Your task to perform on an android device: turn notification dots off Image 0: 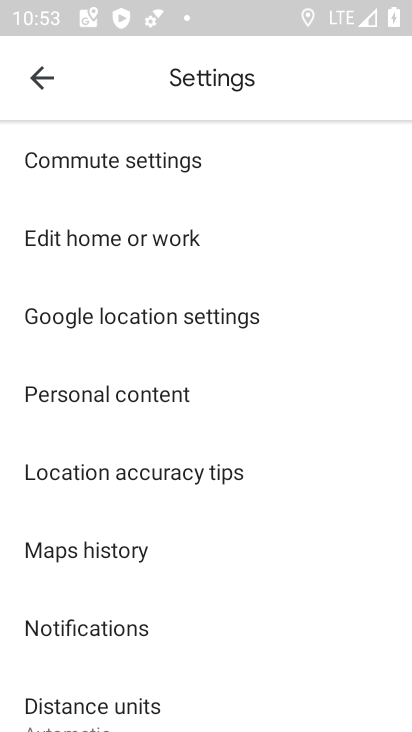
Step 0: press home button
Your task to perform on an android device: turn notification dots off Image 1: 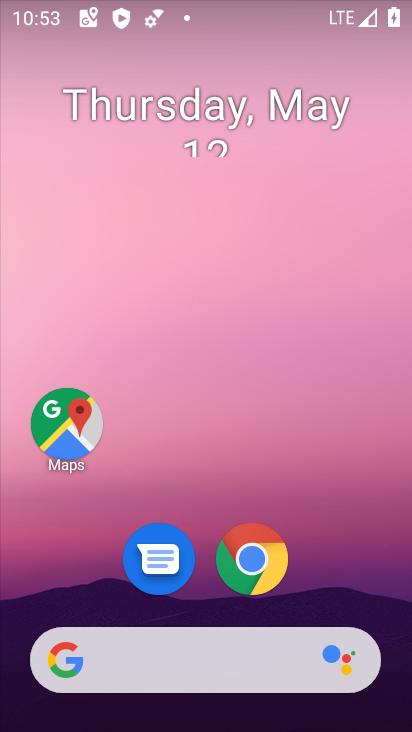
Step 1: drag from (213, 598) to (212, 190)
Your task to perform on an android device: turn notification dots off Image 2: 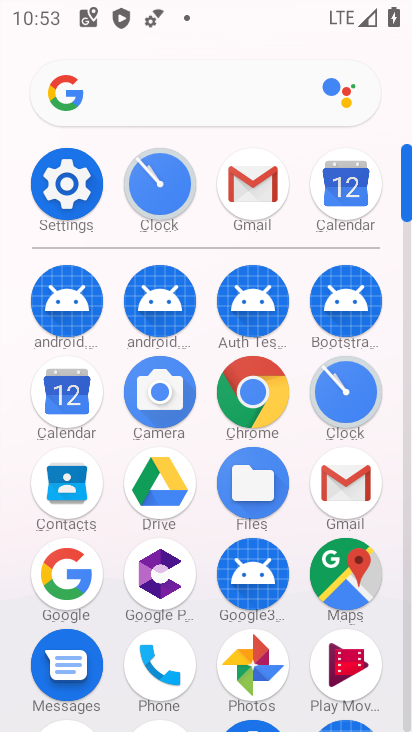
Step 2: click (69, 181)
Your task to perform on an android device: turn notification dots off Image 3: 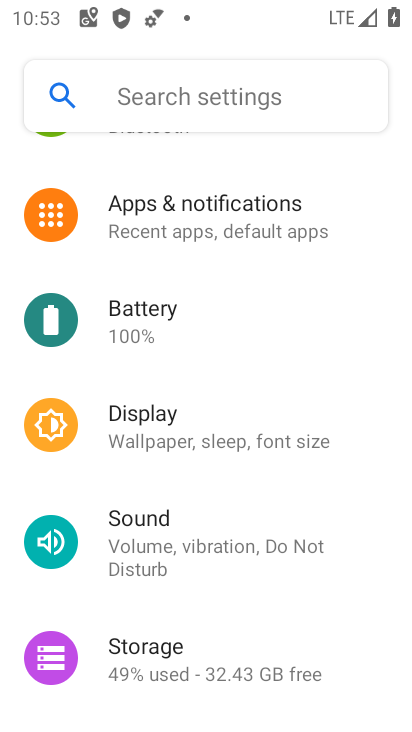
Step 3: drag from (210, 631) to (192, 380)
Your task to perform on an android device: turn notification dots off Image 4: 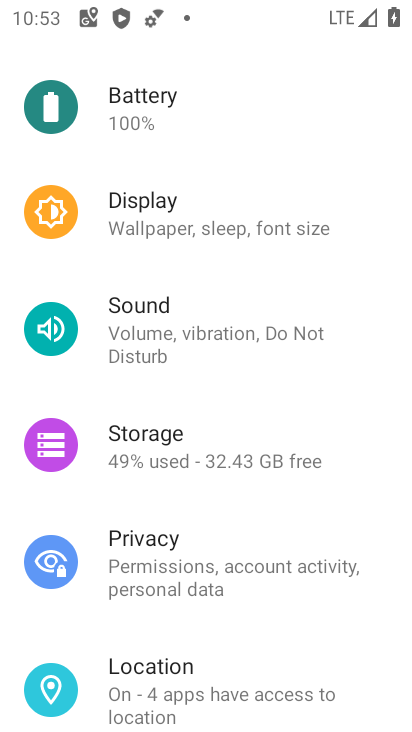
Step 4: drag from (216, 633) to (208, 385)
Your task to perform on an android device: turn notification dots off Image 5: 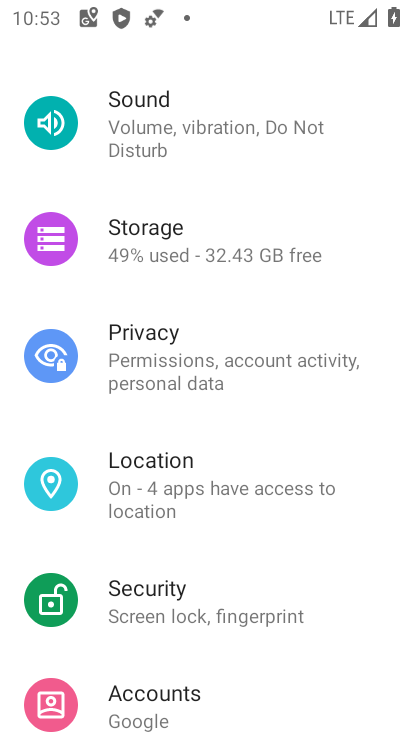
Step 5: drag from (219, 299) to (238, 610)
Your task to perform on an android device: turn notification dots off Image 6: 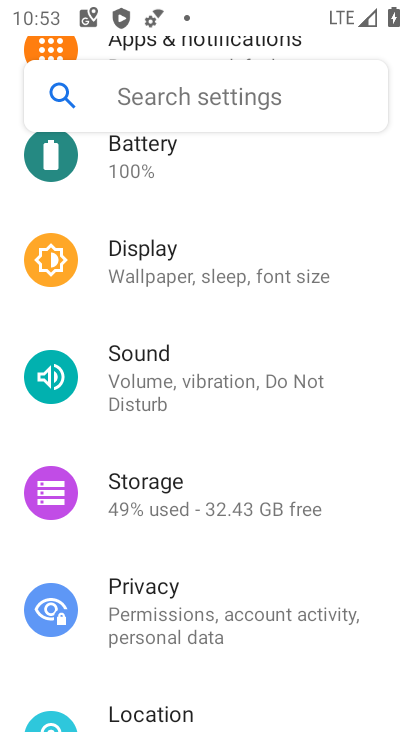
Step 6: drag from (218, 323) to (225, 582)
Your task to perform on an android device: turn notification dots off Image 7: 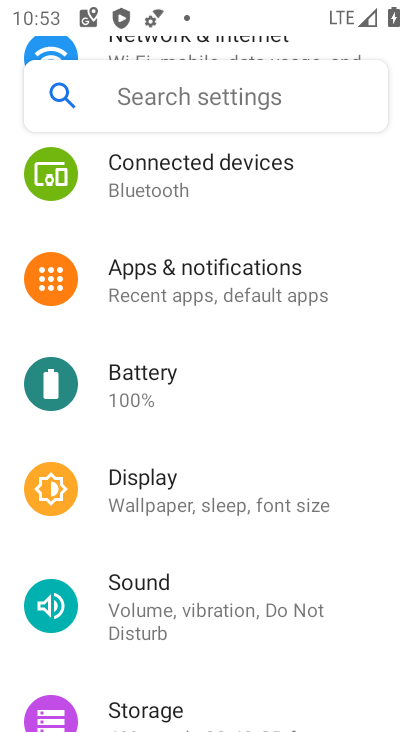
Step 7: click (204, 302)
Your task to perform on an android device: turn notification dots off Image 8: 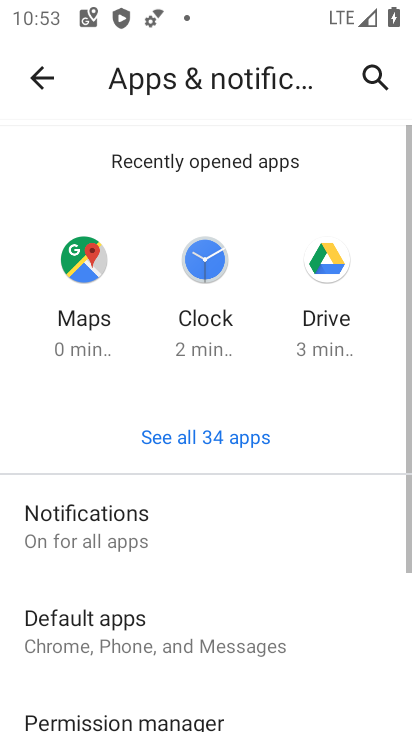
Step 8: drag from (291, 603) to (273, 454)
Your task to perform on an android device: turn notification dots off Image 9: 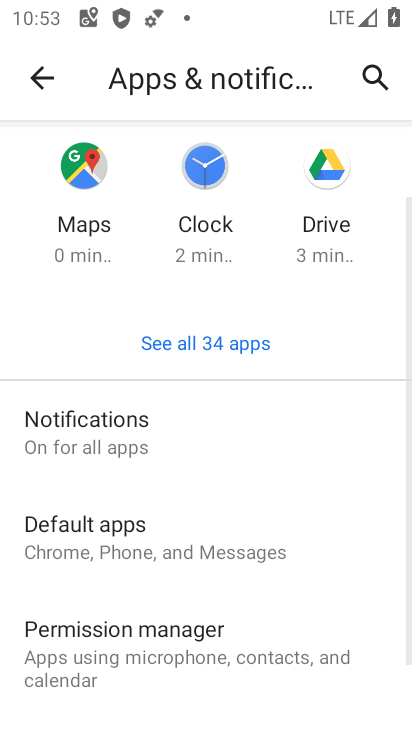
Step 9: click (191, 423)
Your task to perform on an android device: turn notification dots off Image 10: 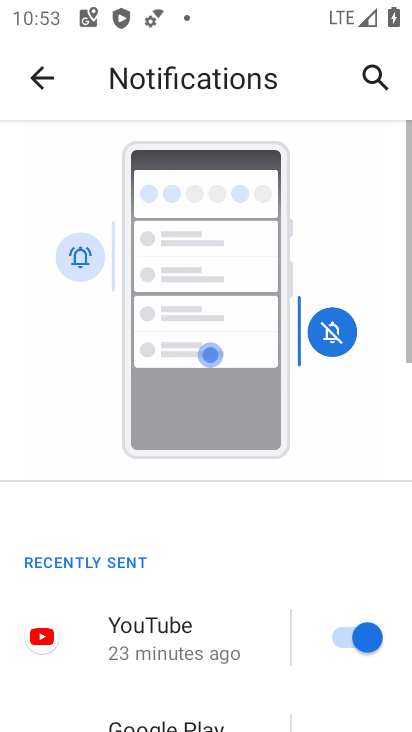
Step 10: drag from (267, 622) to (256, 281)
Your task to perform on an android device: turn notification dots off Image 11: 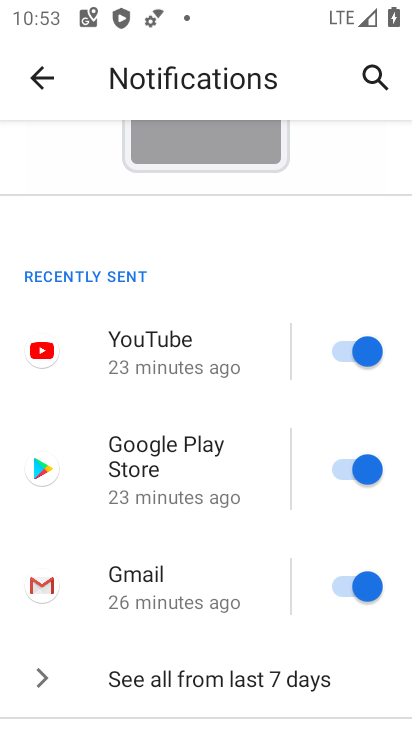
Step 11: drag from (219, 622) to (216, 302)
Your task to perform on an android device: turn notification dots off Image 12: 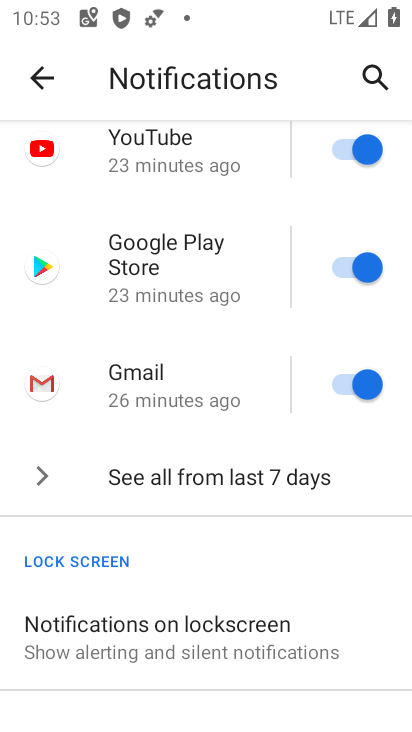
Step 12: drag from (297, 662) to (300, 385)
Your task to perform on an android device: turn notification dots off Image 13: 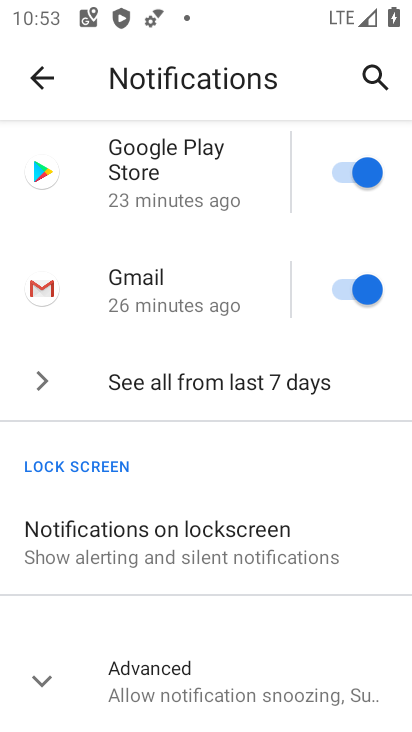
Step 13: click (177, 671)
Your task to perform on an android device: turn notification dots off Image 14: 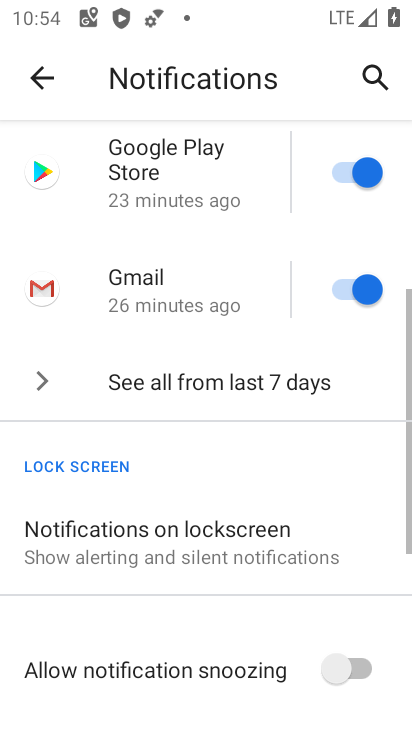
Step 14: task complete